Your task to perform on an android device: Open location settings Image 0: 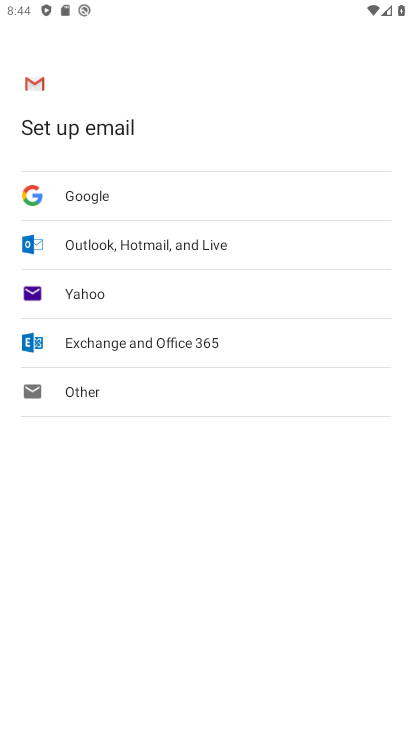
Step 0: press home button
Your task to perform on an android device: Open location settings Image 1: 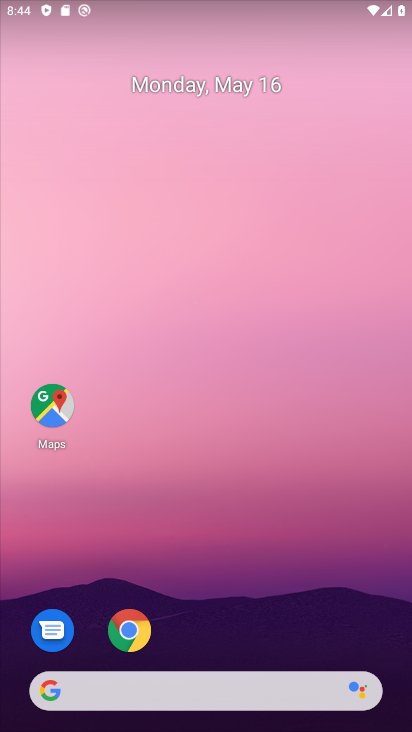
Step 1: drag from (153, 671) to (268, 189)
Your task to perform on an android device: Open location settings Image 2: 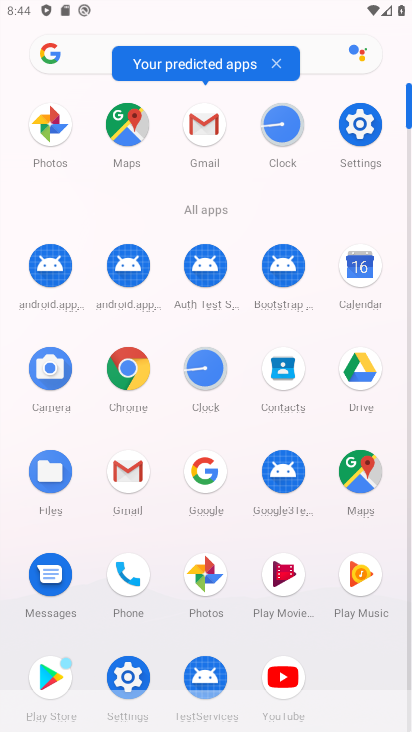
Step 2: click (130, 676)
Your task to perform on an android device: Open location settings Image 3: 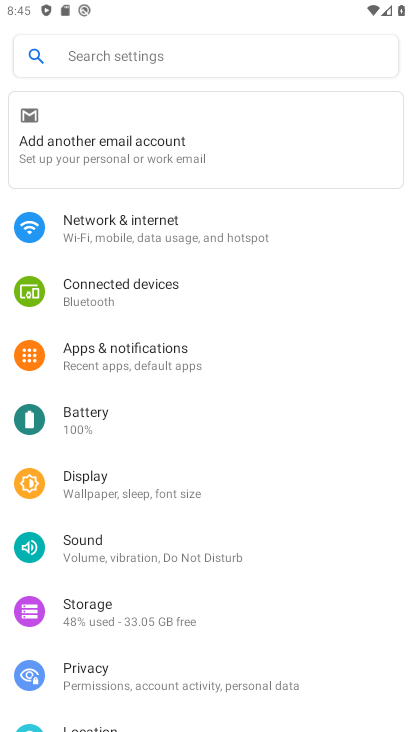
Step 3: drag from (137, 658) to (171, 474)
Your task to perform on an android device: Open location settings Image 4: 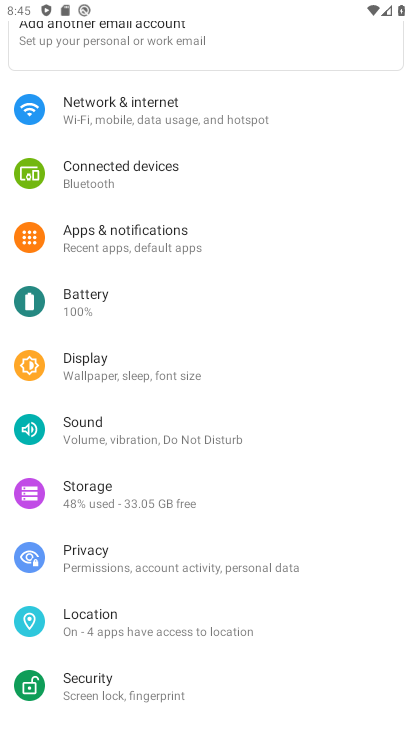
Step 4: click (114, 634)
Your task to perform on an android device: Open location settings Image 5: 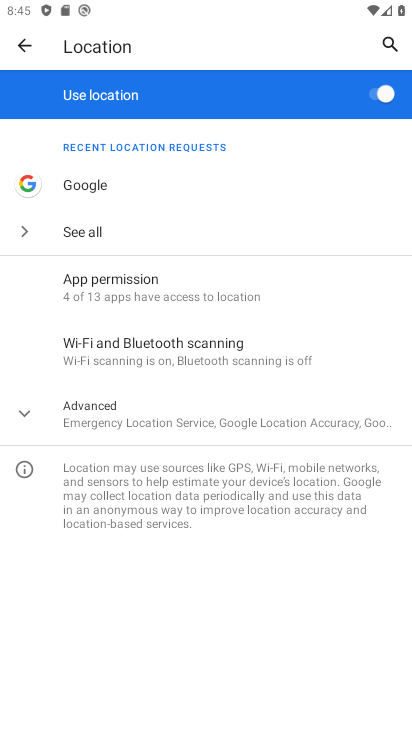
Step 5: task complete